Your task to perform on an android device: turn off wifi Image 0: 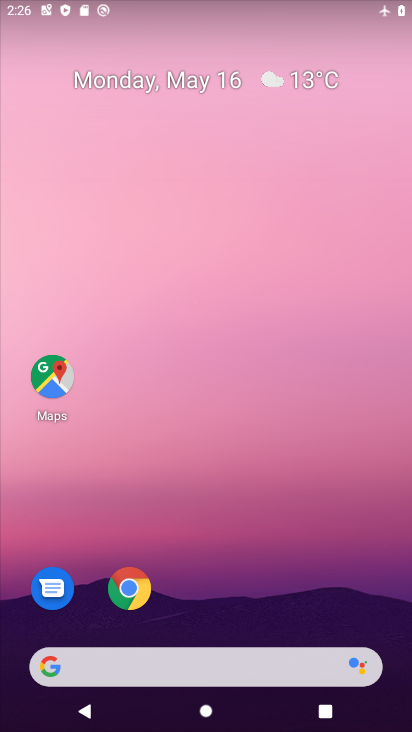
Step 0: drag from (308, 648) to (272, 10)
Your task to perform on an android device: turn off wifi Image 1: 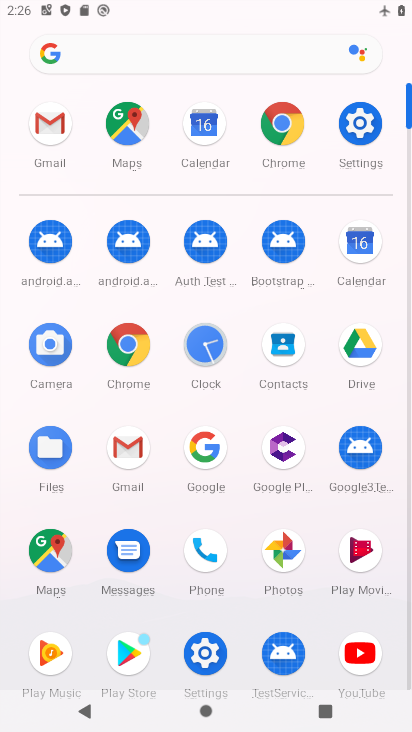
Step 1: click (368, 132)
Your task to perform on an android device: turn off wifi Image 2: 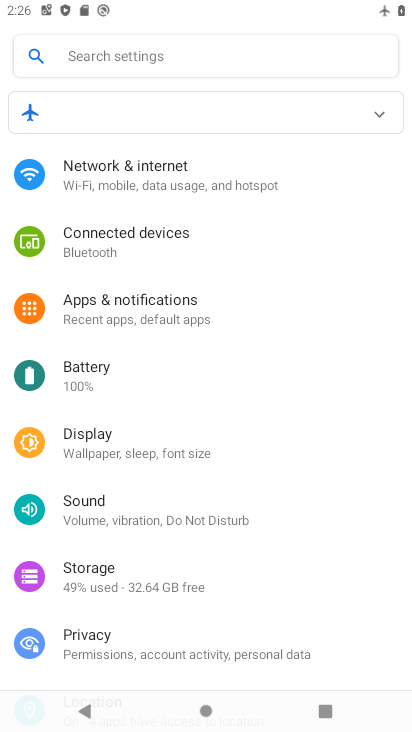
Step 2: click (147, 177)
Your task to perform on an android device: turn off wifi Image 3: 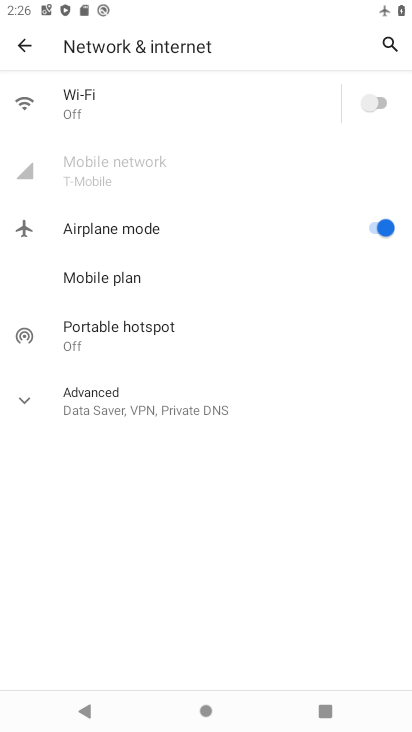
Step 3: task complete